Your task to perform on an android device: check android version Image 0: 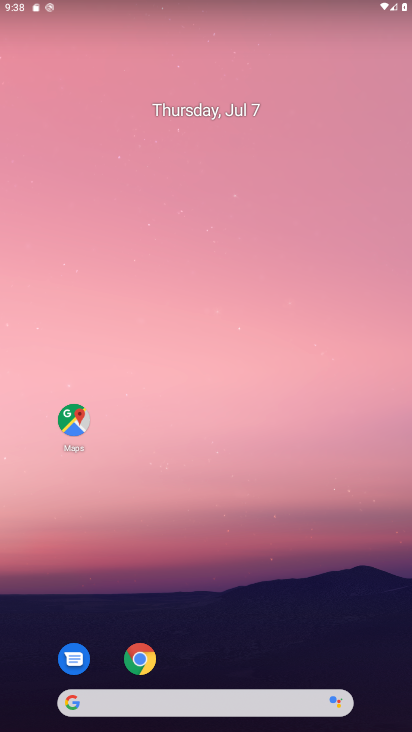
Step 0: drag from (230, 570) to (141, 65)
Your task to perform on an android device: check android version Image 1: 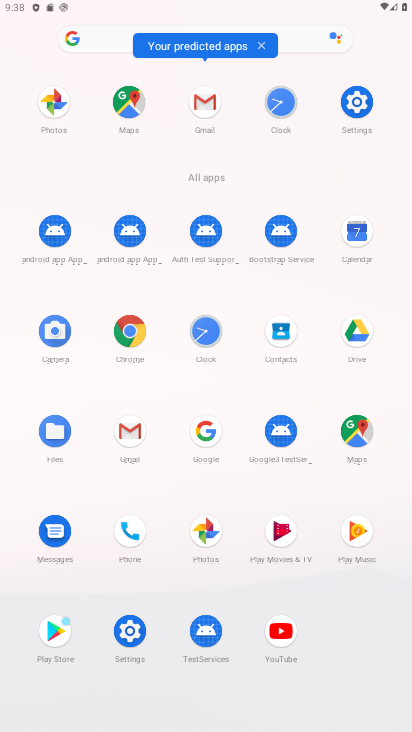
Step 1: click (359, 93)
Your task to perform on an android device: check android version Image 2: 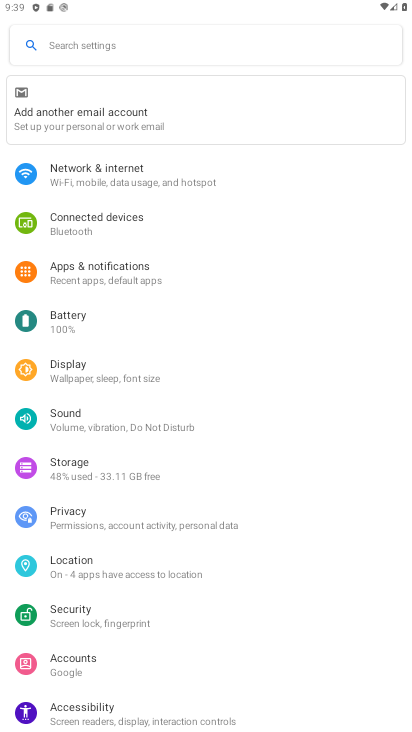
Step 2: drag from (255, 641) to (214, 244)
Your task to perform on an android device: check android version Image 3: 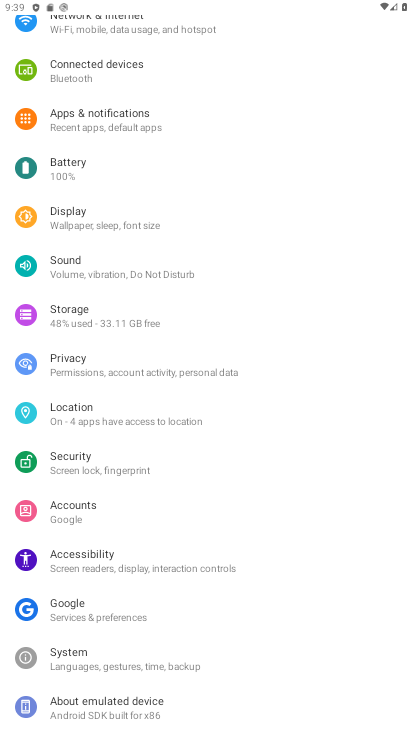
Step 3: drag from (242, 685) to (230, 287)
Your task to perform on an android device: check android version Image 4: 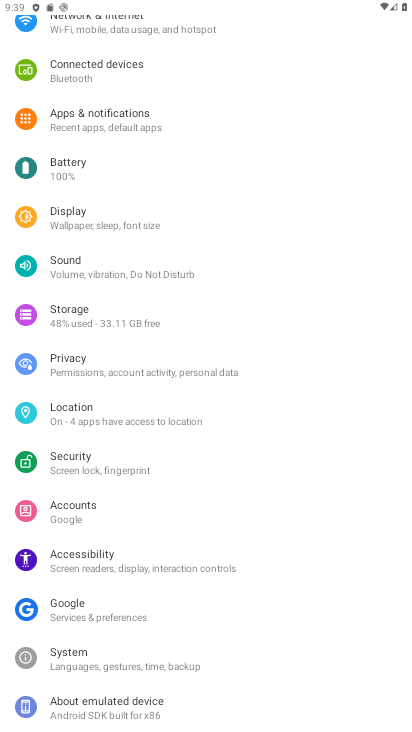
Step 4: click (104, 711)
Your task to perform on an android device: check android version Image 5: 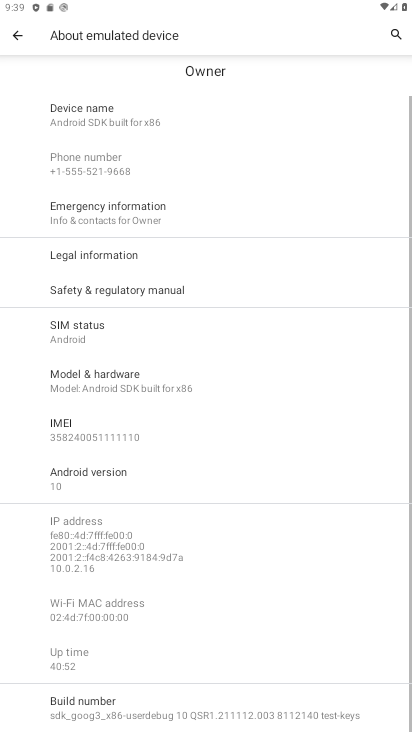
Step 5: task complete